Your task to perform on an android device: delete a single message in the gmail app Image 0: 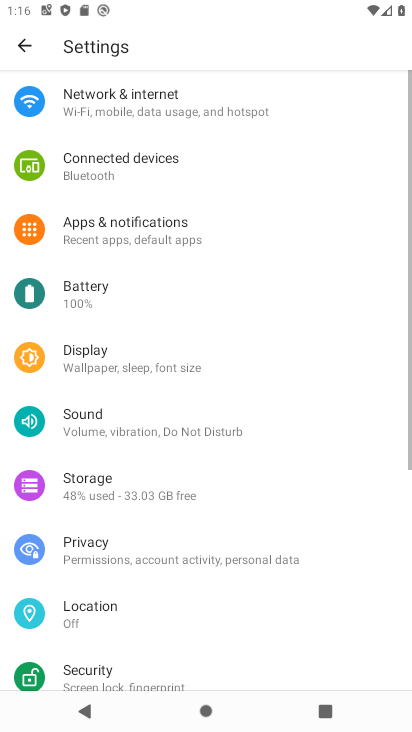
Step 0: press home button
Your task to perform on an android device: delete a single message in the gmail app Image 1: 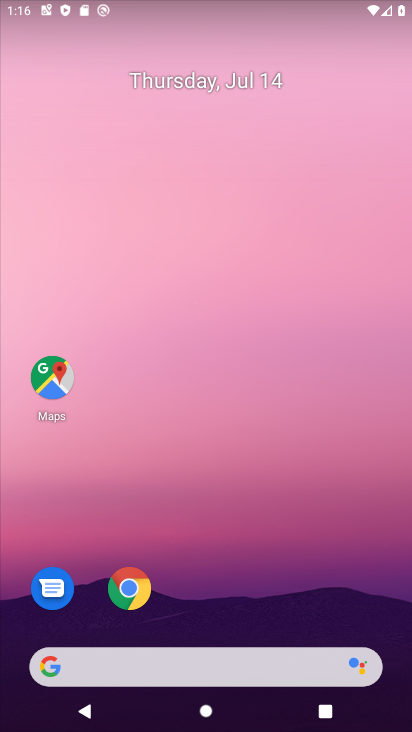
Step 1: drag from (230, 587) to (279, 5)
Your task to perform on an android device: delete a single message in the gmail app Image 2: 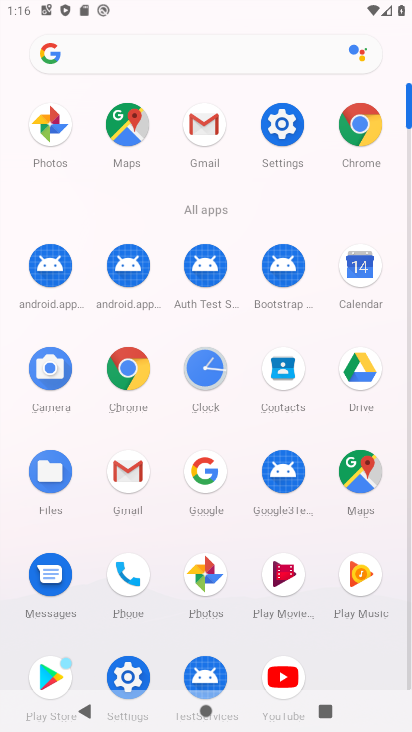
Step 2: click (192, 120)
Your task to perform on an android device: delete a single message in the gmail app Image 3: 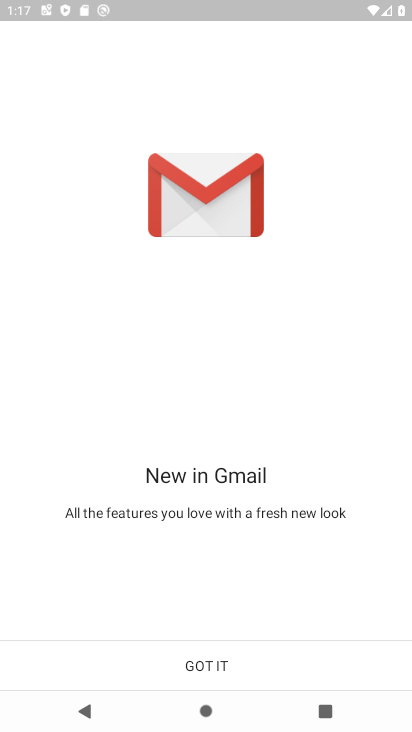
Step 3: click (205, 664)
Your task to perform on an android device: delete a single message in the gmail app Image 4: 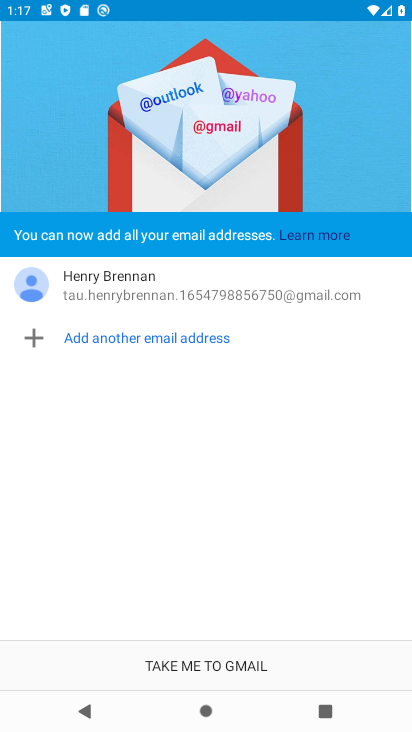
Step 4: click (202, 665)
Your task to perform on an android device: delete a single message in the gmail app Image 5: 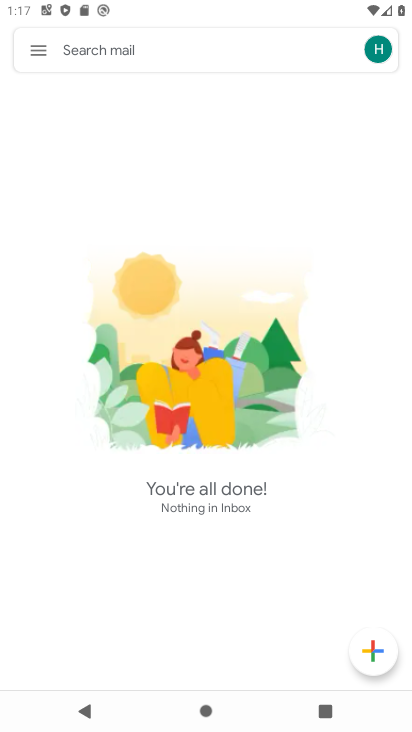
Step 5: task complete